Your task to perform on an android device: toggle translation in the chrome app Image 0: 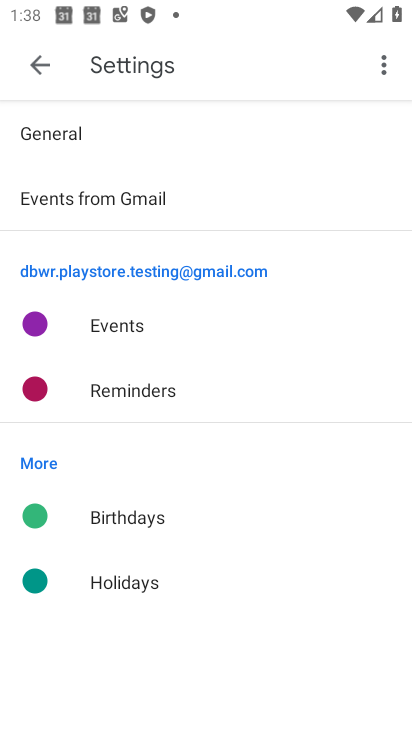
Step 0: press home button
Your task to perform on an android device: toggle translation in the chrome app Image 1: 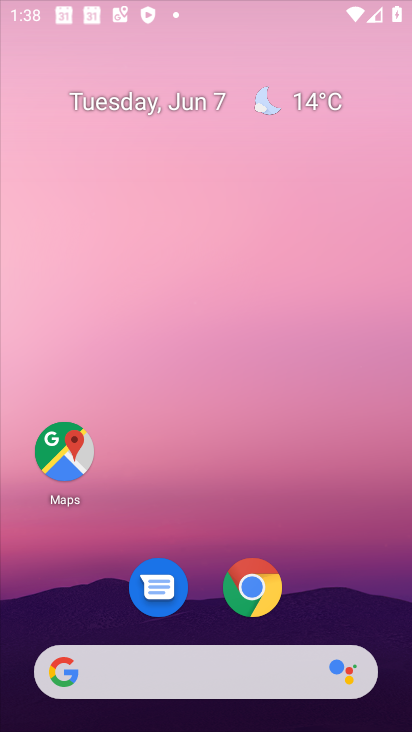
Step 1: drag from (257, 639) to (269, 82)
Your task to perform on an android device: toggle translation in the chrome app Image 2: 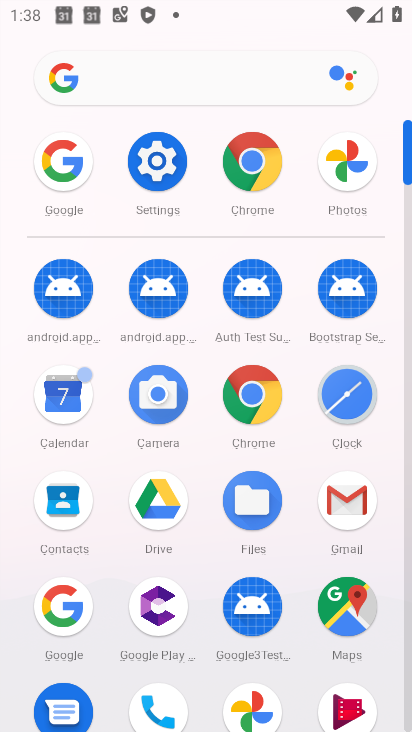
Step 2: click (267, 169)
Your task to perform on an android device: toggle translation in the chrome app Image 3: 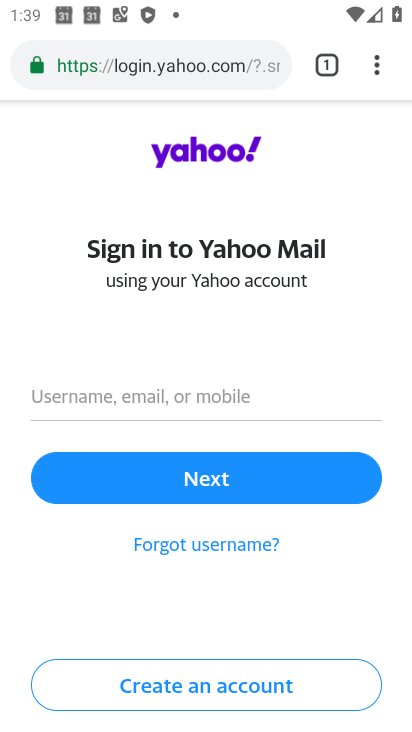
Step 3: click (375, 67)
Your task to perform on an android device: toggle translation in the chrome app Image 4: 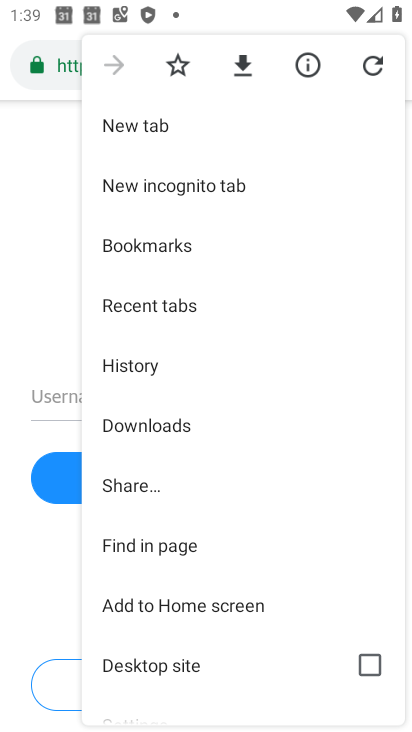
Step 4: task complete